Your task to perform on an android device: turn on data saver in the chrome app Image 0: 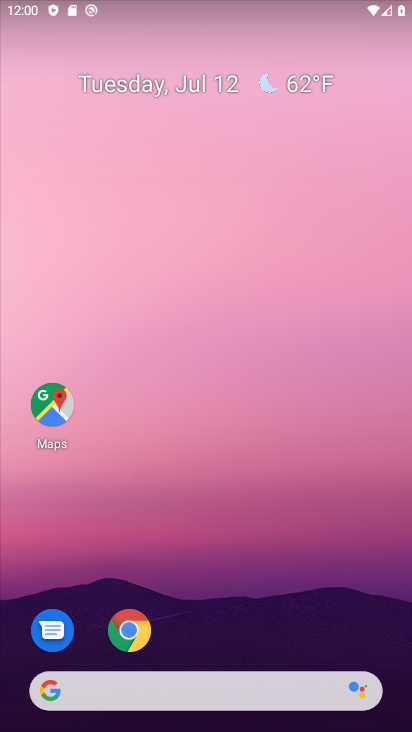
Step 0: click (191, 181)
Your task to perform on an android device: turn on data saver in the chrome app Image 1: 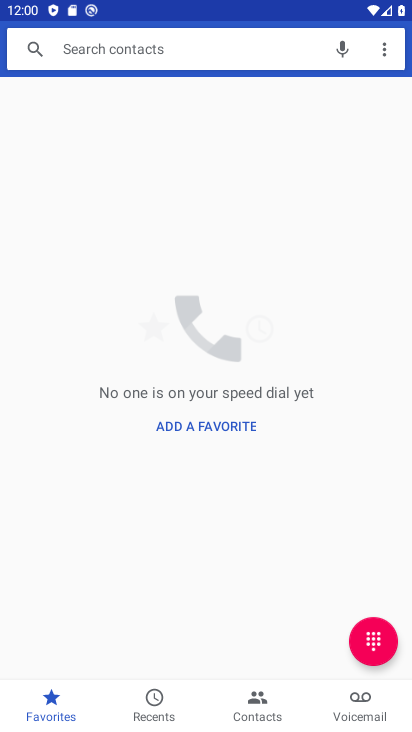
Step 1: press home button
Your task to perform on an android device: turn on data saver in the chrome app Image 2: 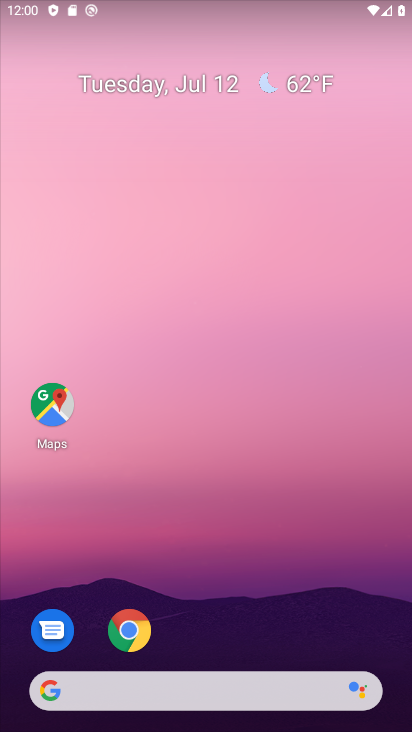
Step 2: drag from (242, 619) to (243, 133)
Your task to perform on an android device: turn on data saver in the chrome app Image 3: 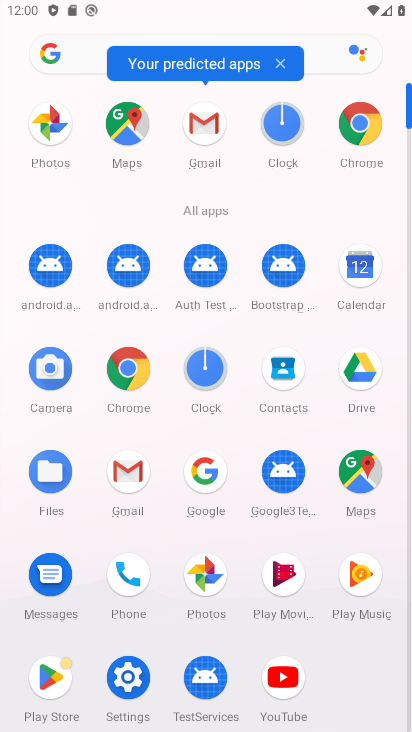
Step 3: click (129, 364)
Your task to perform on an android device: turn on data saver in the chrome app Image 4: 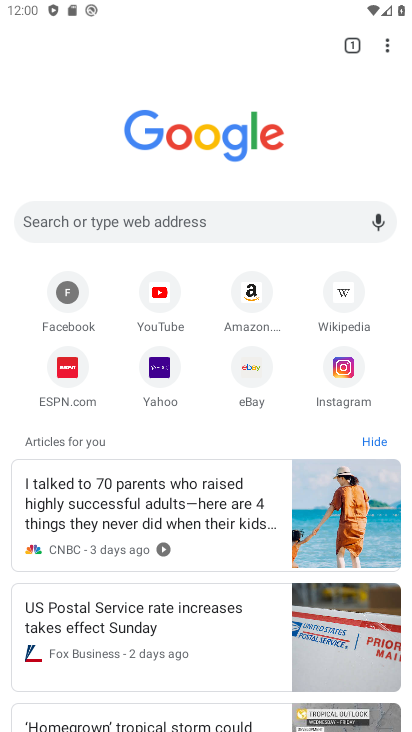
Step 4: click (387, 43)
Your task to perform on an android device: turn on data saver in the chrome app Image 5: 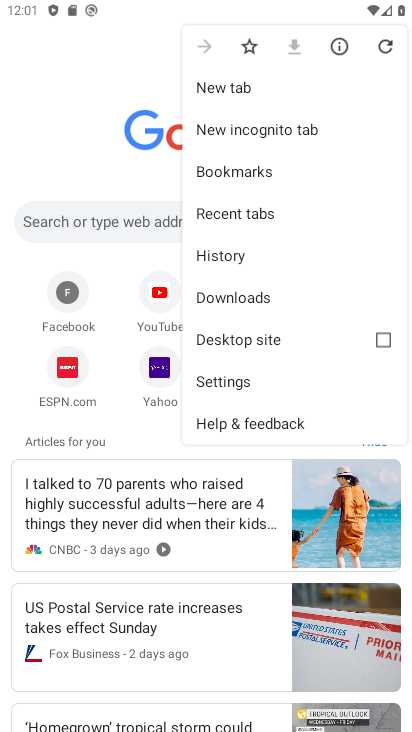
Step 5: click (249, 387)
Your task to perform on an android device: turn on data saver in the chrome app Image 6: 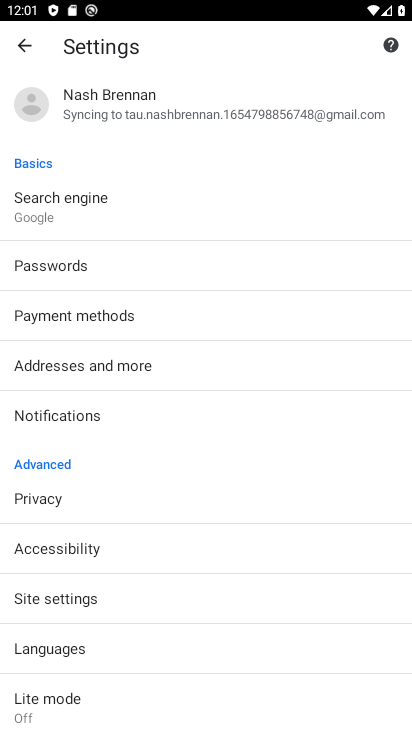
Step 6: click (54, 701)
Your task to perform on an android device: turn on data saver in the chrome app Image 7: 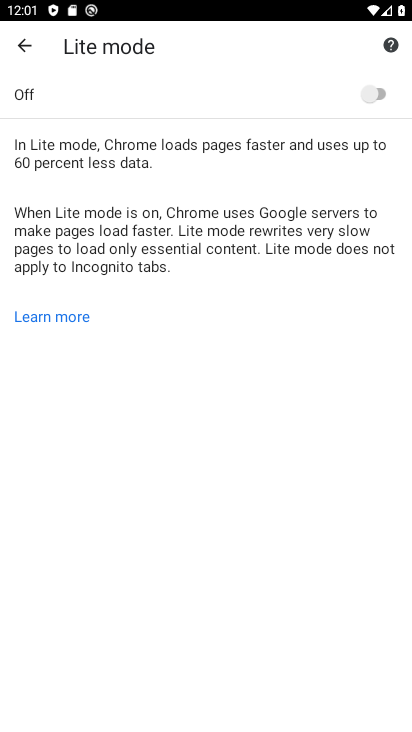
Step 7: click (381, 89)
Your task to perform on an android device: turn on data saver in the chrome app Image 8: 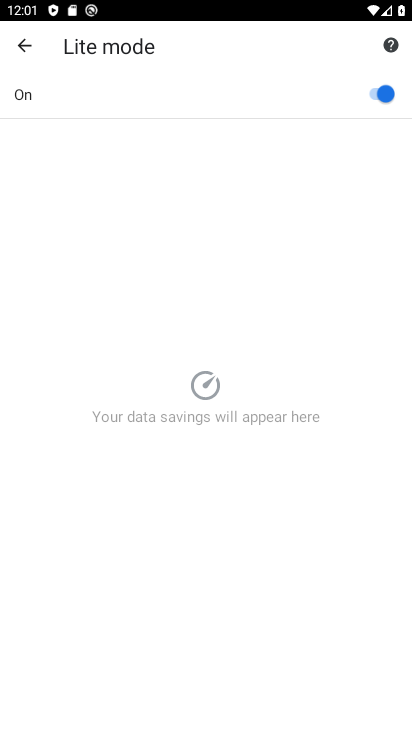
Step 8: task complete